Your task to perform on an android device: See recent photos Image 0: 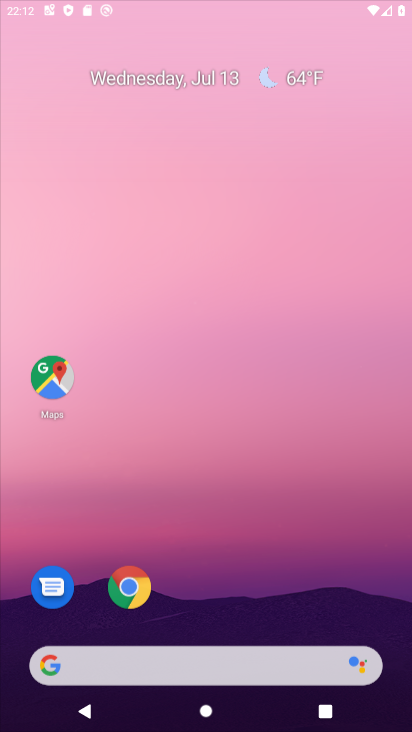
Step 0: click (271, 45)
Your task to perform on an android device: See recent photos Image 1: 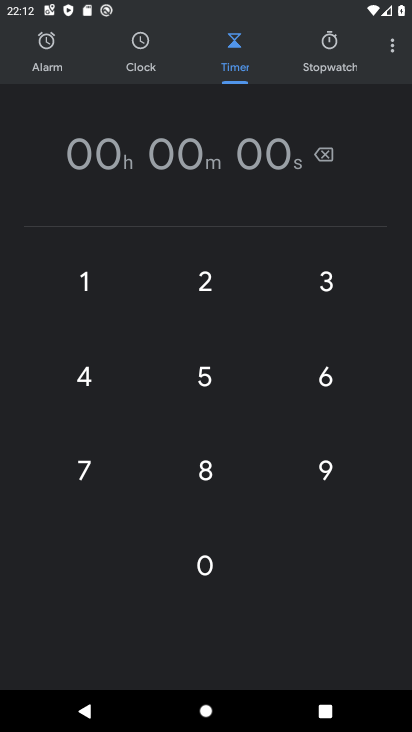
Step 1: press back button
Your task to perform on an android device: See recent photos Image 2: 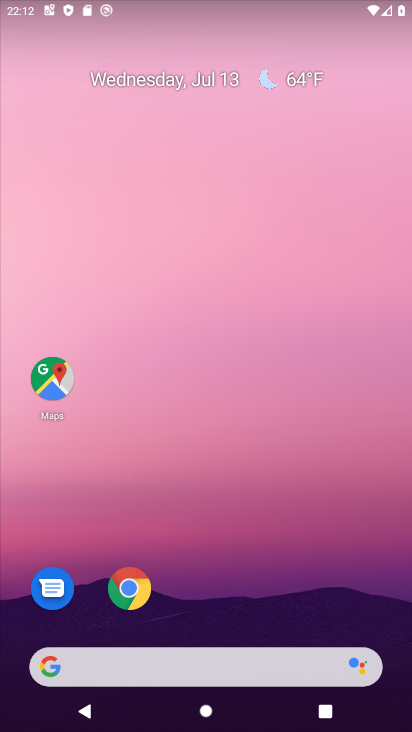
Step 2: drag from (194, 618) to (282, 45)
Your task to perform on an android device: See recent photos Image 3: 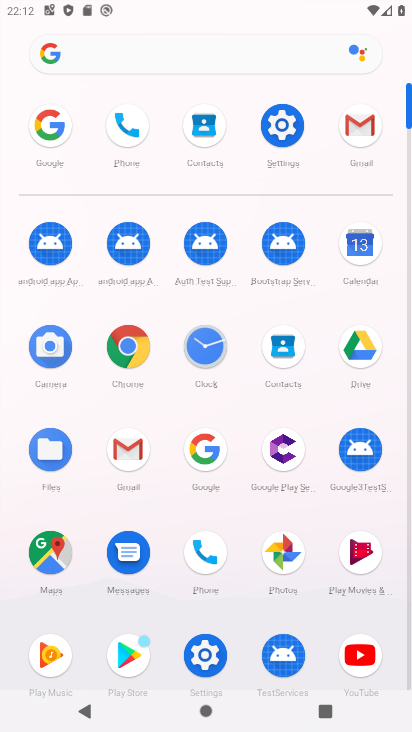
Step 3: click (268, 546)
Your task to perform on an android device: See recent photos Image 4: 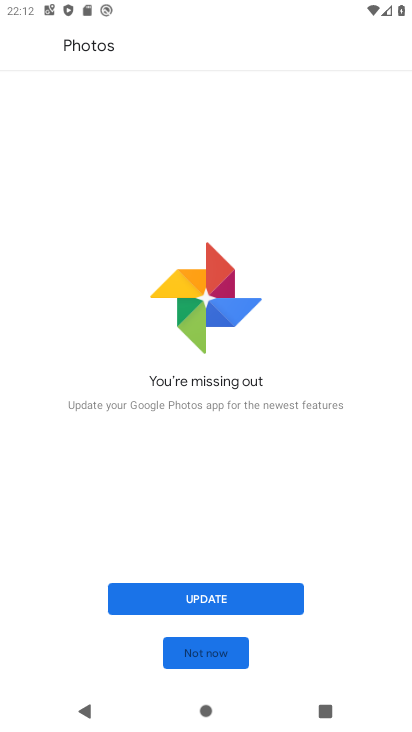
Step 4: click (211, 650)
Your task to perform on an android device: See recent photos Image 5: 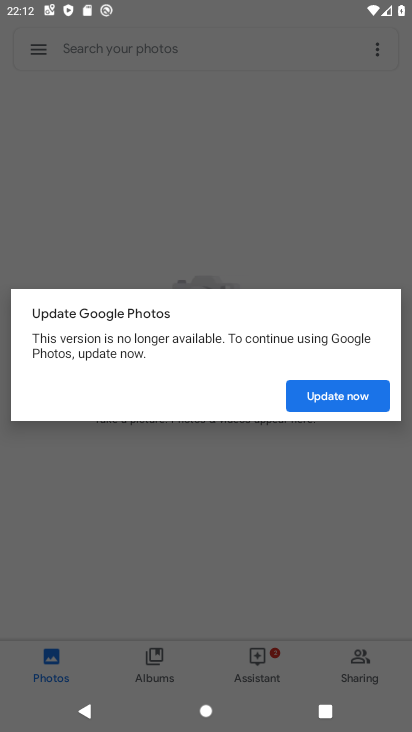
Step 5: click (350, 386)
Your task to perform on an android device: See recent photos Image 6: 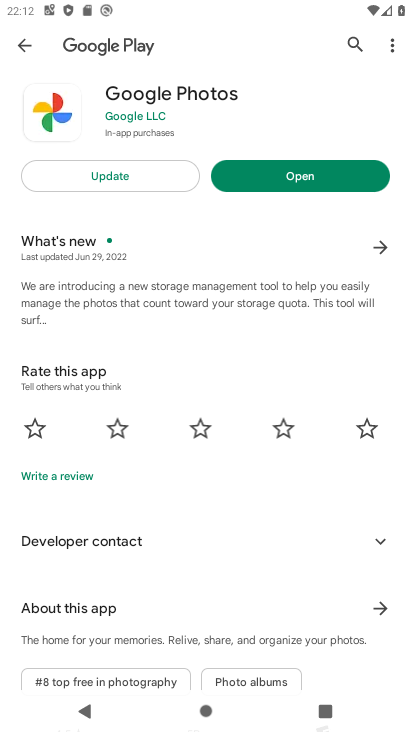
Step 6: click (258, 176)
Your task to perform on an android device: See recent photos Image 7: 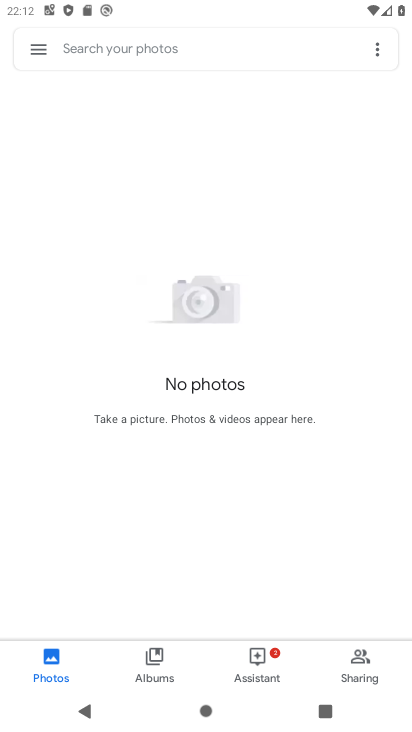
Step 7: click (52, 665)
Your task to perform on an android device: See recent photos Image 8: 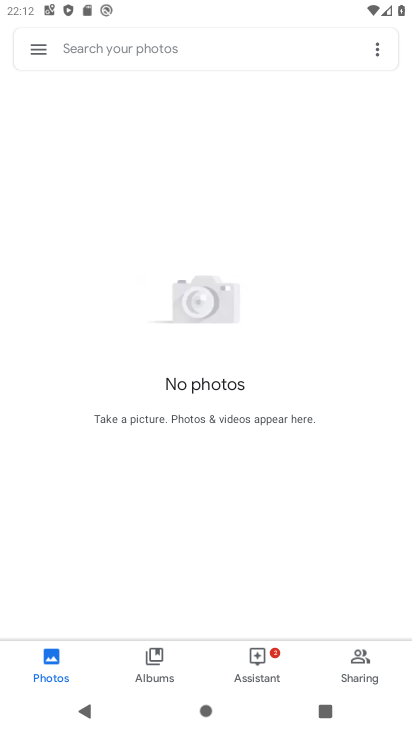
Step 8: task complete